Your task to perform on an android device: Open Google Image 0: 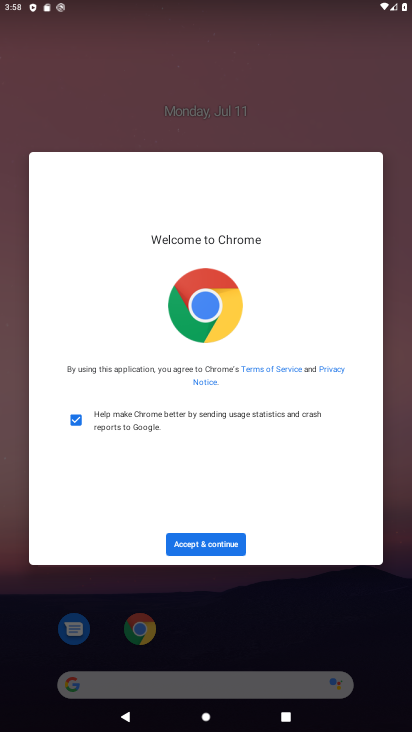
Step 0: press back button
Your task to perform on an android device: Open Google Image 1: 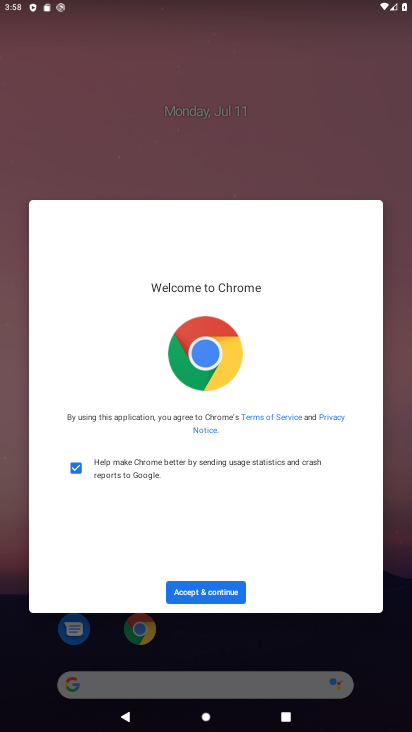
Step 1: press back button
Your task to perform on an android device: Open Google Image 2: 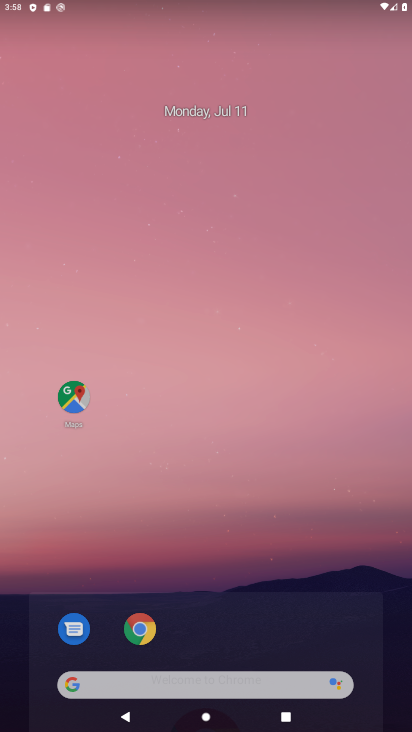
Step 2: press home button
Your task to perform on an android device: Open Google Image 3: 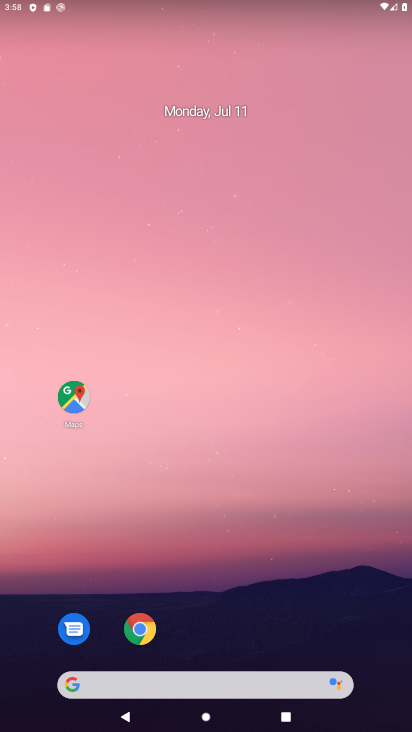
Step 3: click (259, 470)
Your task to perform on an android device: Open Google Image 4: 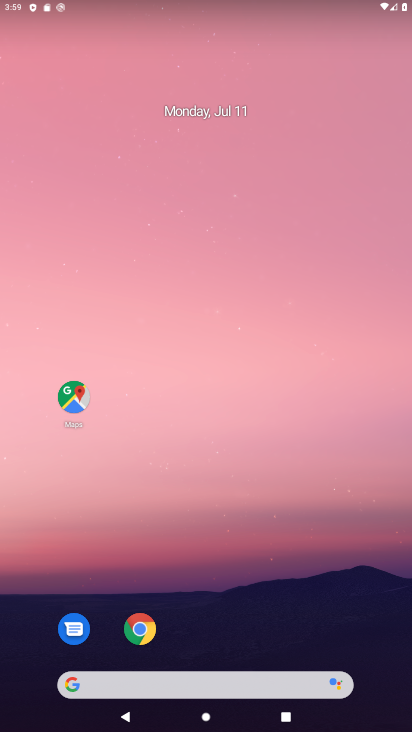
Step 4: drag from (172, 634) to (296, 39)
Your task to perform on an android device: Open Google Image 5: 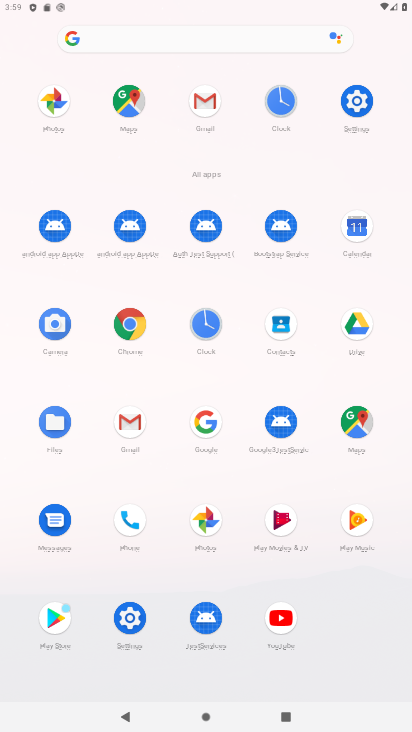
Step 5: click (205, 414)
Your task to perform on an android device: Open Google Image 6: 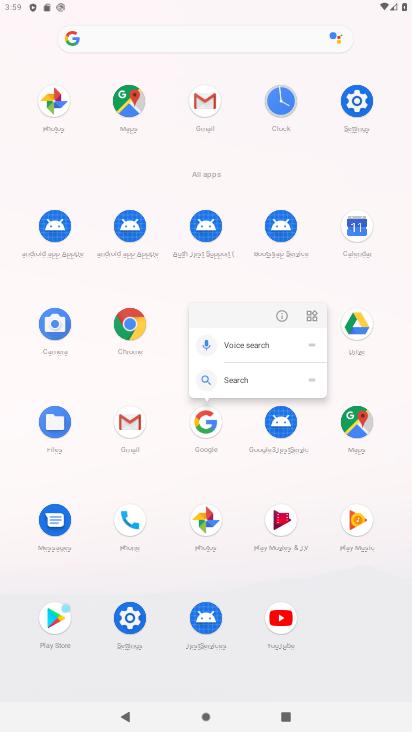
Step 6: click (283, 317)
Your task to perform on an android device: Open Google Image 7: 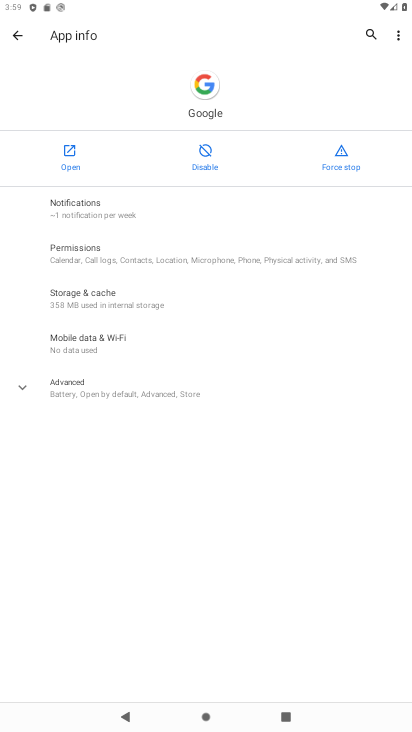
Step 7: click (73, 159)
Your task to perform on an android device: Open Google Image 8: 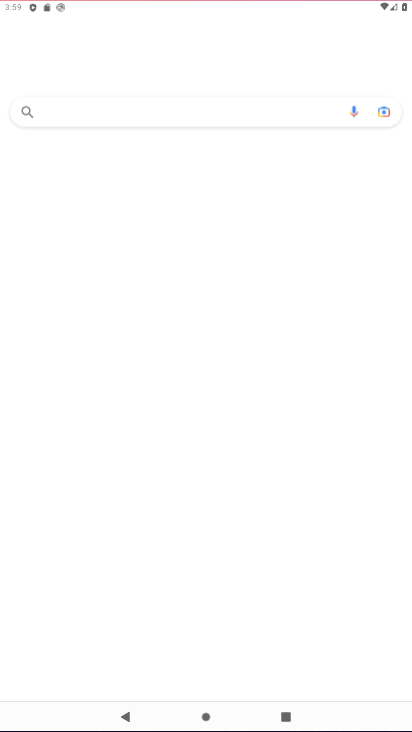
Step 8: click (70, 151)
Your task to perform on an android device: Open Google Image 9: 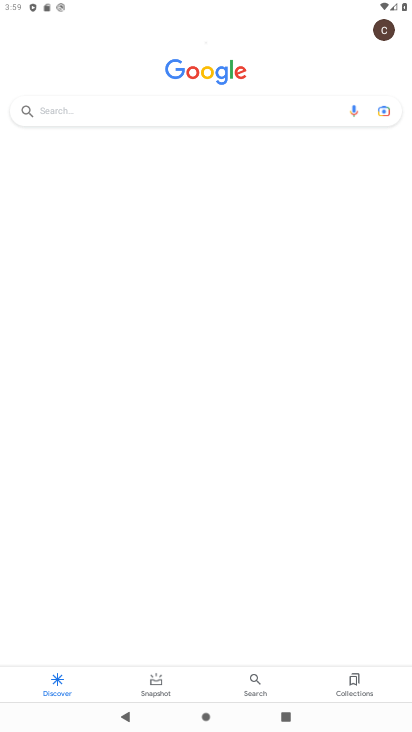
Step 9: task complete